Your task to perform on an android device: set an alarm Image 0: 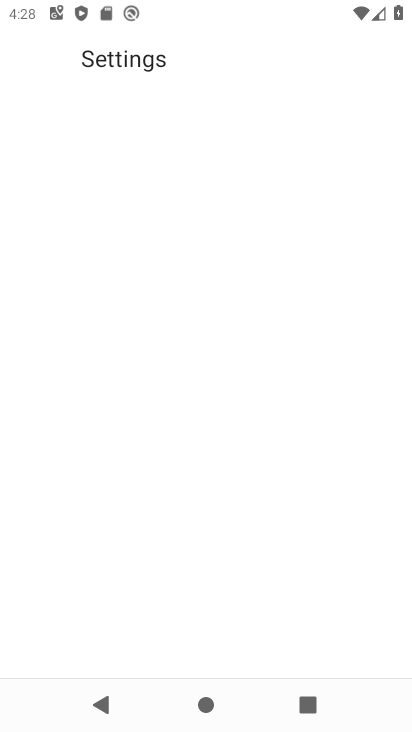
Step 0: drag from (296, 475) to (154, 25)
Your task to perform on an android device: set an alarm Image 1: 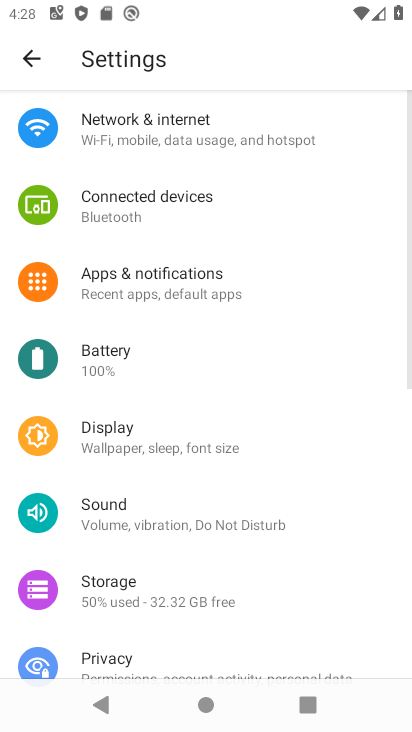
Step 1: press home button
Your task to perform on an android device: set an alarm Image 2: 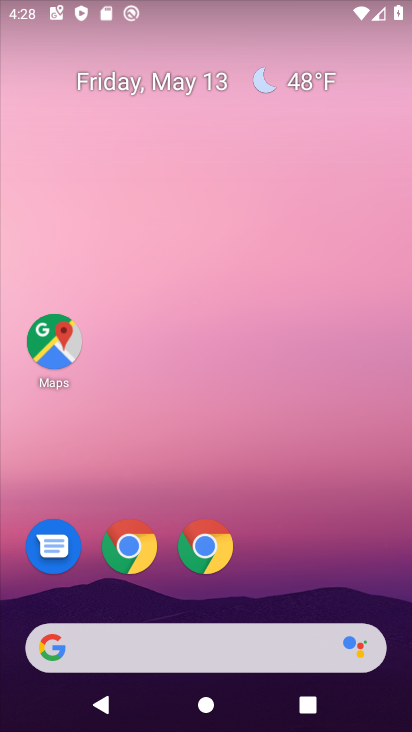
Step 2: drag from (274, 452) to (172, 14)
Your task to perform on an android device: set an alarm Image 3: 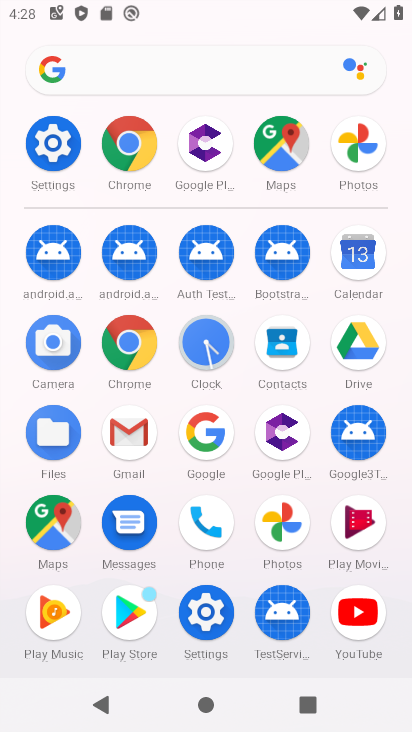
Step 3: click (214, 329)
Your task to perform on an android device: set an alarm Image 4: 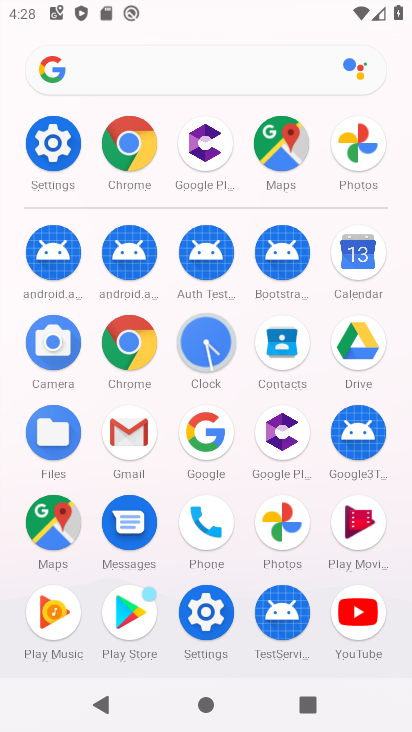
Step 4: click (202, 339)
Your task to perform on an android device: set an alarm Image 5: 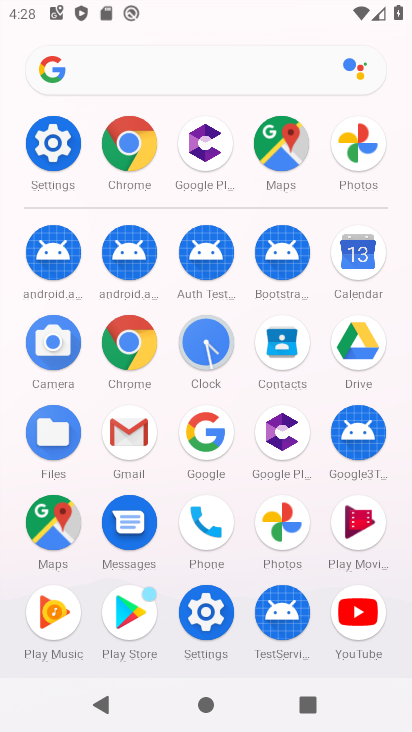
Step 5: click (209, 339)
Your task to perform on an android device: set an alarm Image 6: 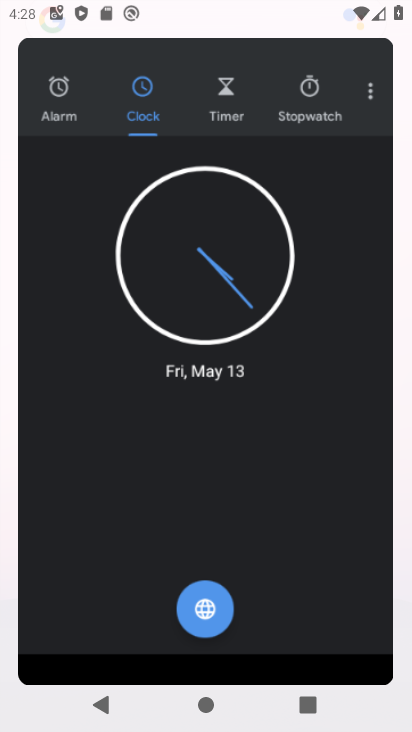
Step 6: click (214, 333)
Your task to perform on an android device: set an alarm Image 7: 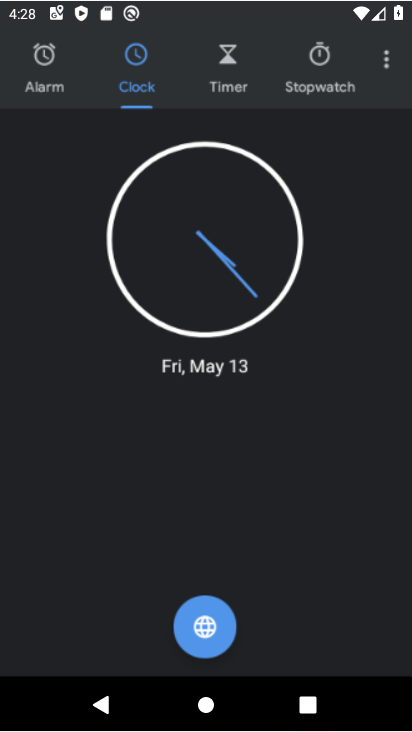
Step 7: click (215, 332)
Your task to perform on an android device: set an alarm Image 8: 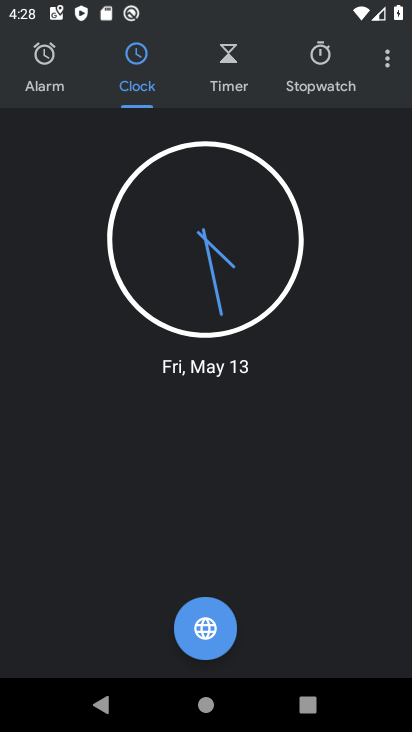
Step 8: click (45, 68)
Your task to perform on an android device: set an alarm Image 9: 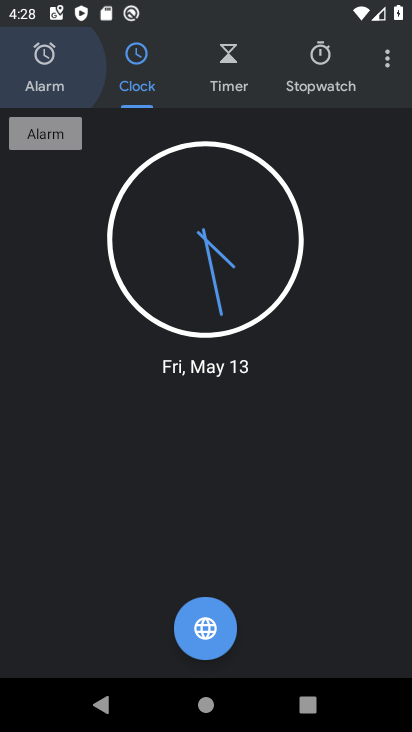
Step 9: click (44, 67)
Your task to perform on an android device: set an alarm Image 10: 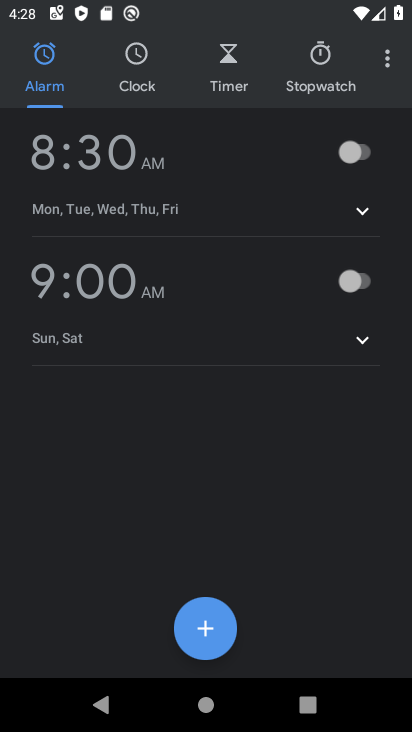
Step 10: click (360, 154)
Your task to perform on an android device: set an alarm Image 11: 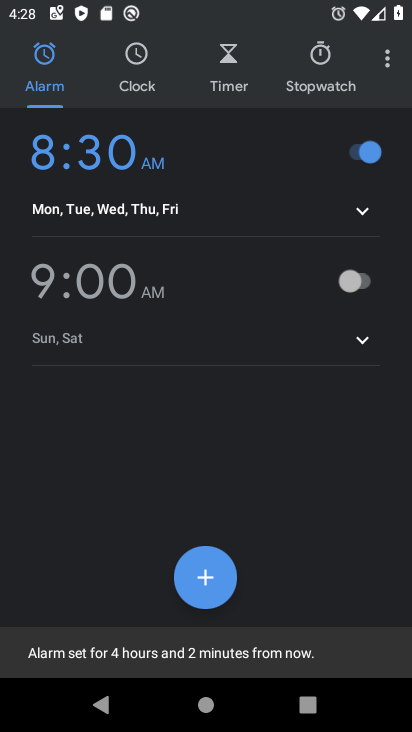
Step 11: task complete